Your task to perform on an android device: turn on translation in the chrome app Image 0: 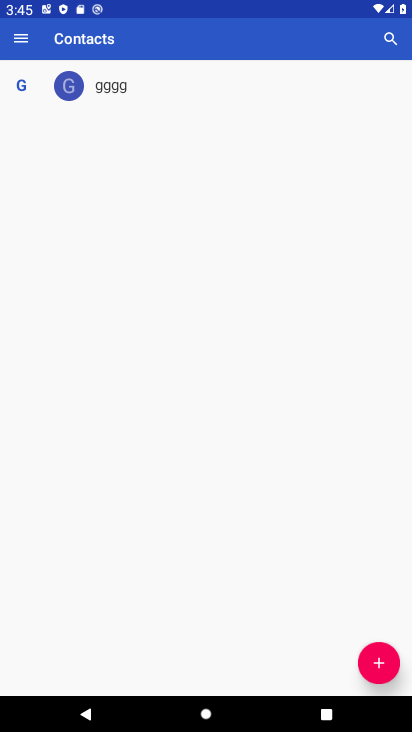
Step 0: press home button
Your task to perform on an android device: turn on translation in the chrome app Image 1: 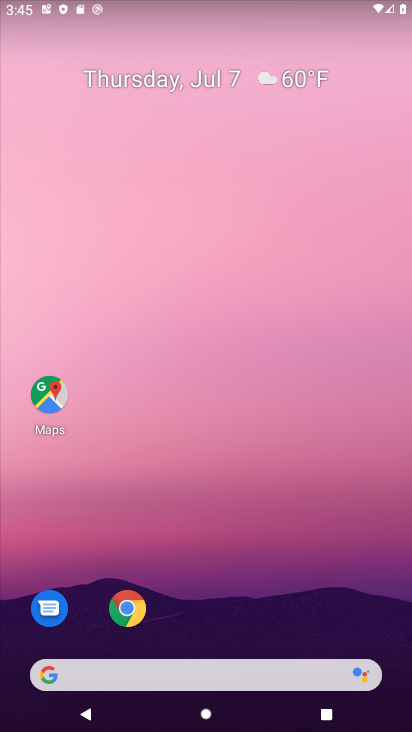
Step 1: click (133, 599)
Your task to perform on an android device: turn on translation in the chrome app Image 2: 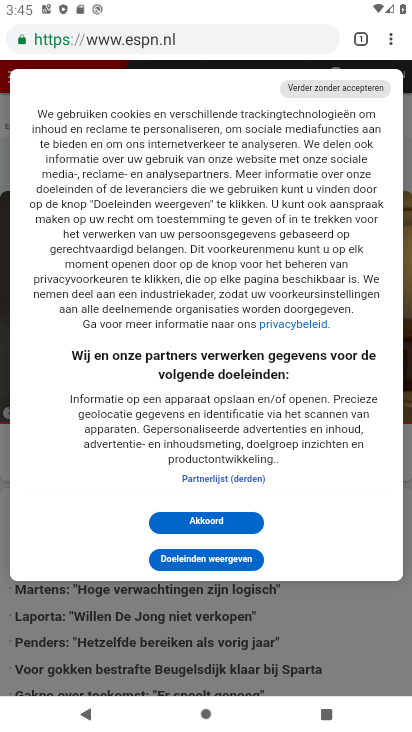
Step 2: drag from (385, 34) to (271, 478)
Your task to perform on an android device: turn on translation in the chrome app Image 3: 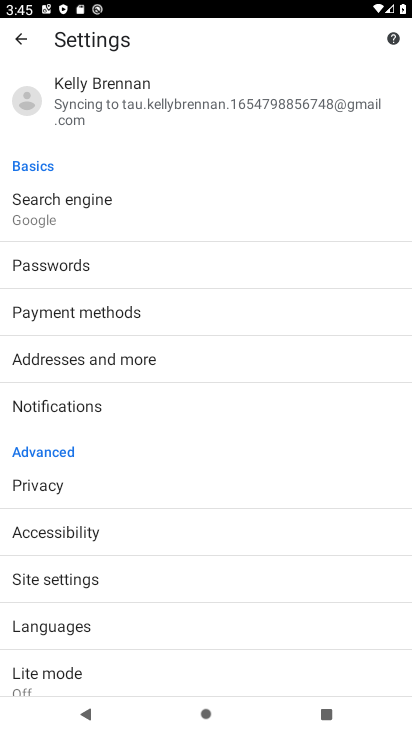
Step 3: click (109, 625)
Your task to perform on an android device: turn on translation in the chrome app Image 4: 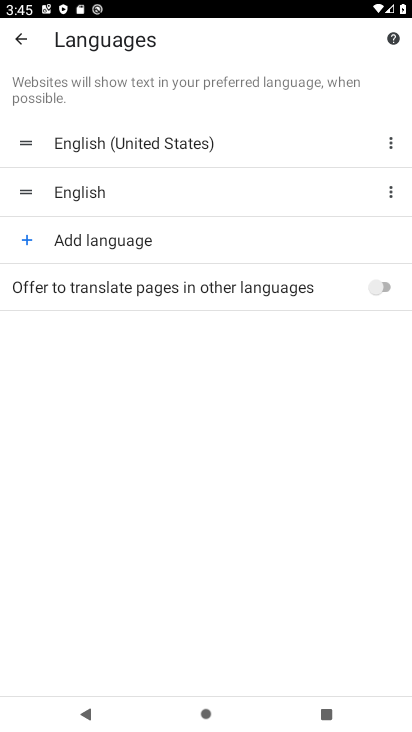
Step 4: click (372, 295)
Your task to perform on an android device: turn on translation in the chrome app Image 5: 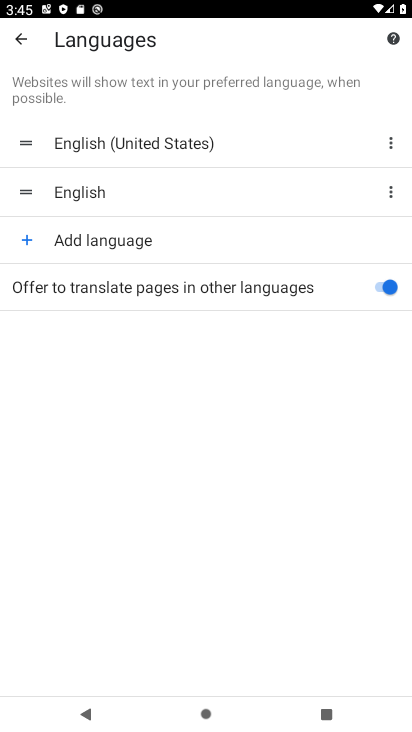
Step 5: task complete